Your task to perform on an android device: toggle translation in the chrome app Image 0: 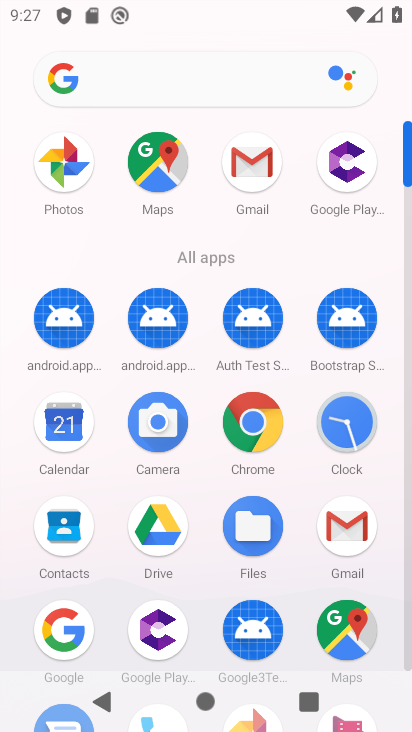
Step 0: click (254, 426)
Your task to perform on an android device: toggle translation in the chrome app Image 1: 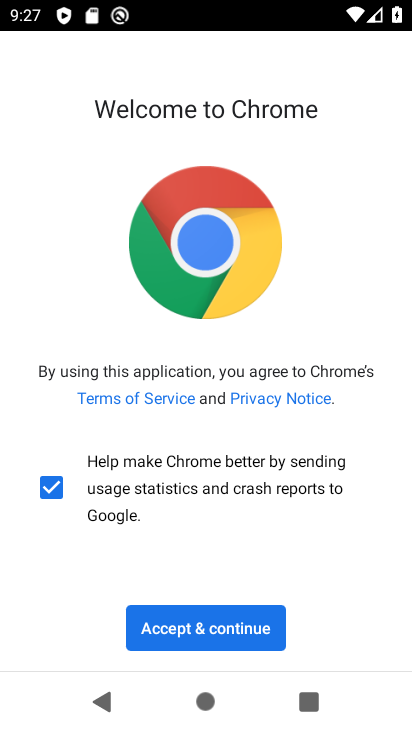
Step 1: click (251, 631)
Your task to perform on an android device: toggle translation in the chrome app Image 2: 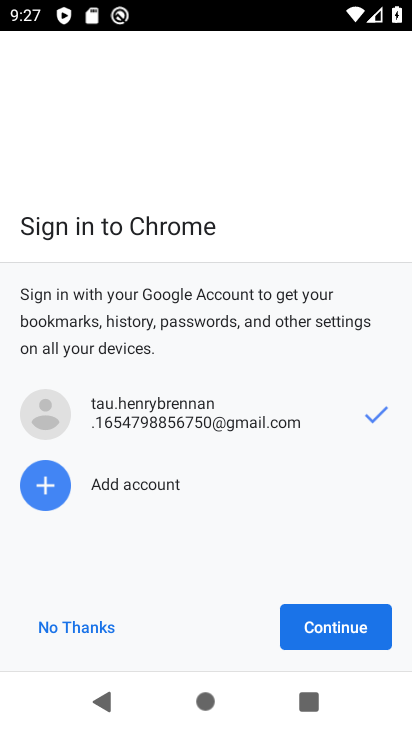
Step 2: click (372, 629)
Your task to perform on an android device: toggle translation in the chrome app Image 3: 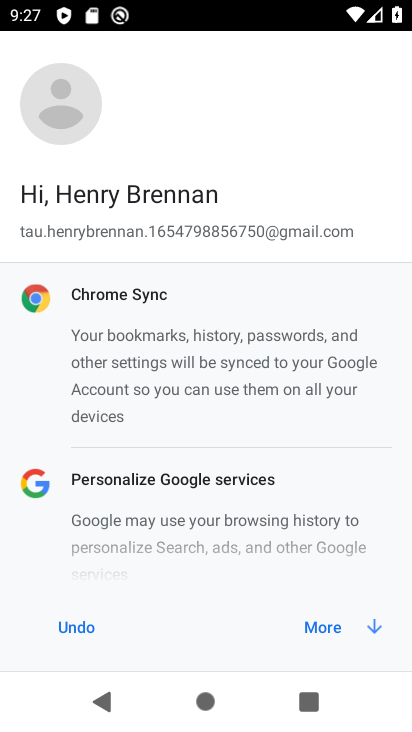
Step 3: click (357, 628)
Your task to perform on an android device: toggle translation in the chrome app Image 4: 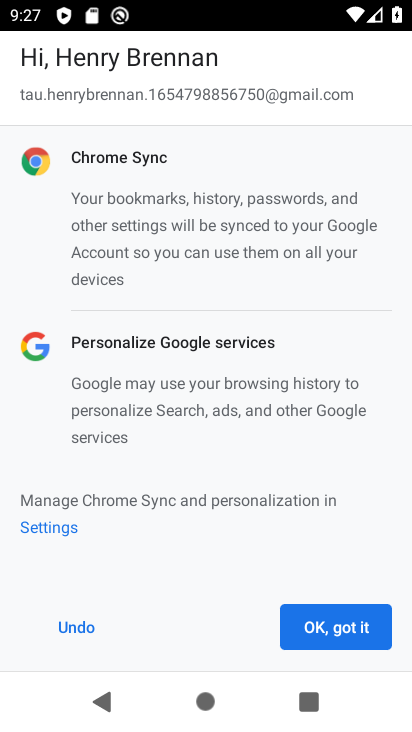
Step 4: click (333, 626)
Your task to perform on an android device: toggle translation in the chrome app Image 5: 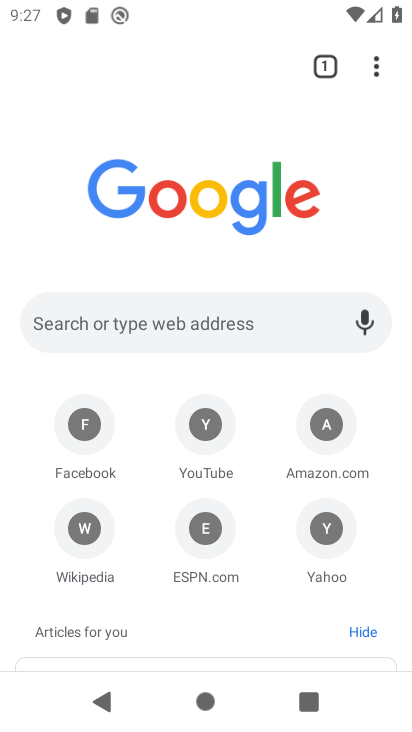
Step 5: drag from (380, 75) to (246, 541)
Your task to perform on an android device: toggle translation in the chrome app Image 6: 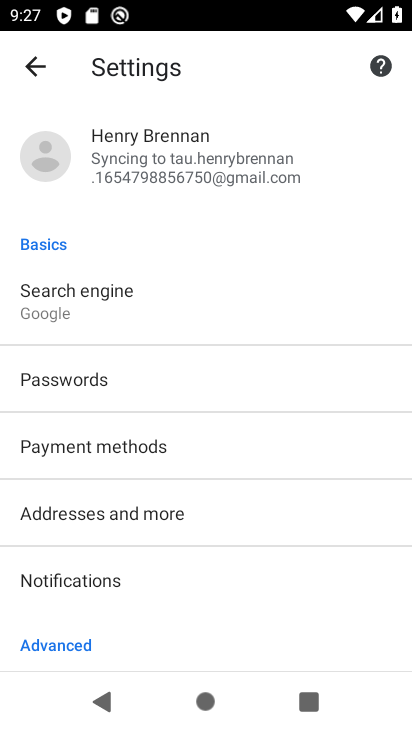
Step 6: drag from (213, 615) to (380, 151)
Your task to perform on an android device: toggle translation in the chrome app Image 7: 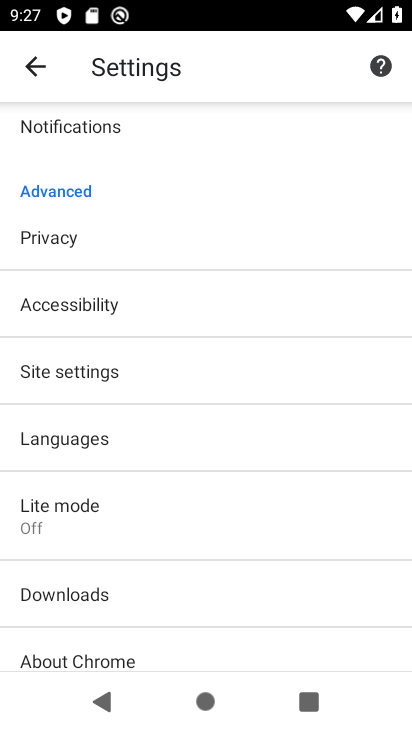
Step 7: click (132, 447)
Your task to perform on an android device: toggle translation in the chrome app Image 8: 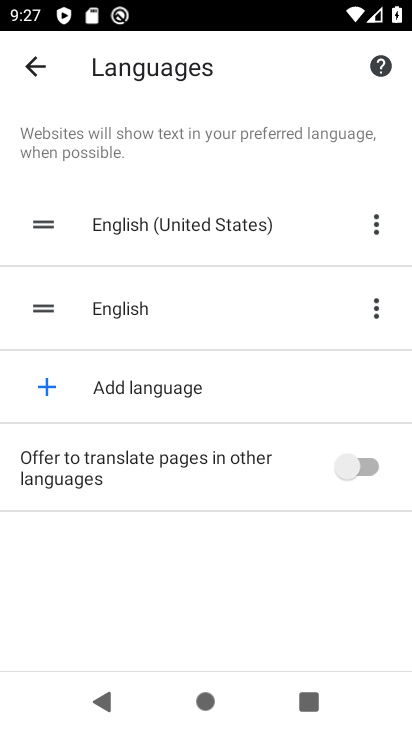
Step 8: click (363, 461)
Your task to perform on an android device: toggle translation in the chrome app Image 9: 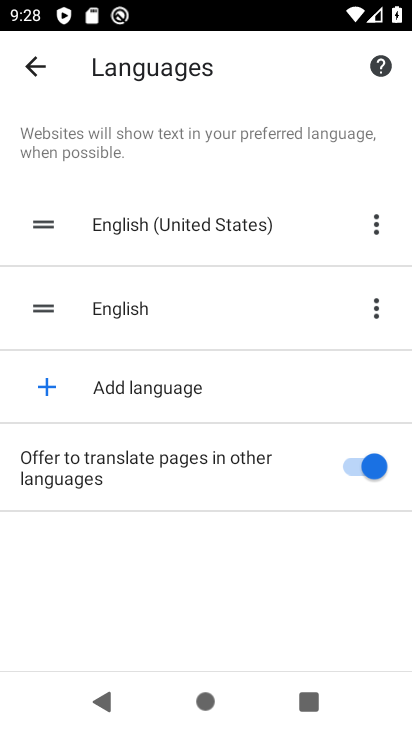
Step 9: task complete